Your task to perform on an android device: Open the map Image 0: 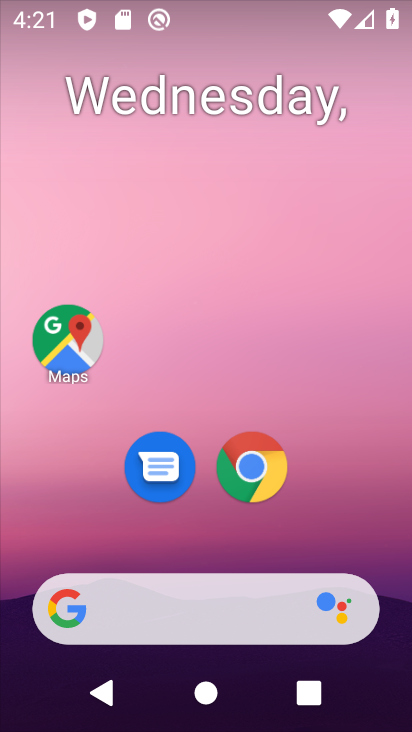
Step 0: click (51, 344)
Your task to perform on an android device: Open the map Image 1: 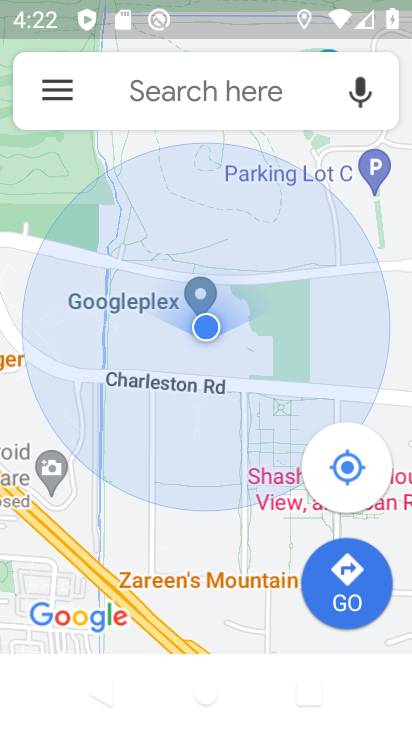
Step 1: task complete